Your task to perform on an android device: visit the assistant section in the google photos Image 0: 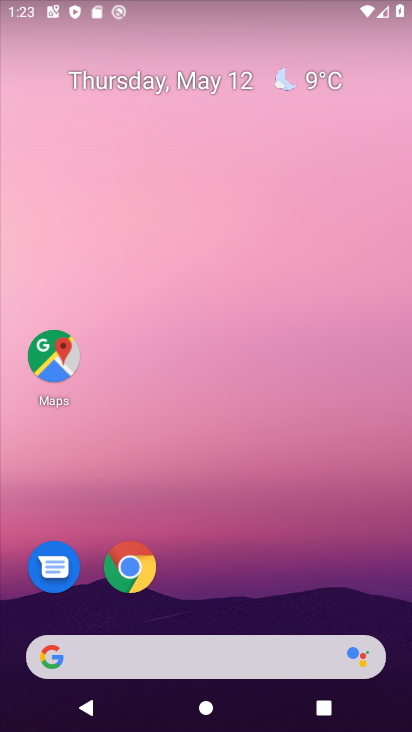
Step 0: drag from (223, 621) to (211, 94)
Your task to perform on an android device: visit the assistant section in the google photos Image 1: 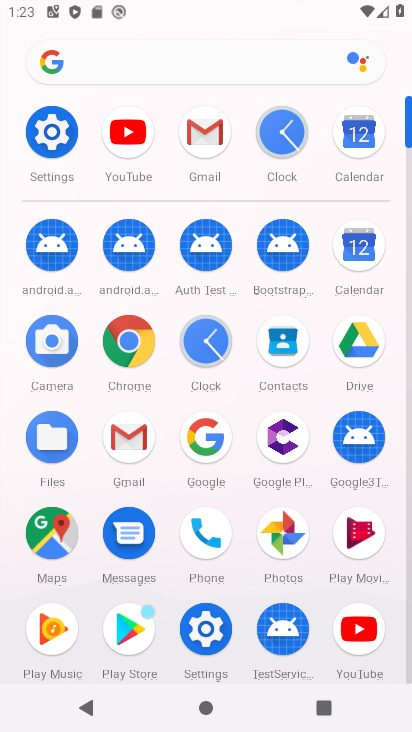
Step 1: click (283, 532)
Your task to perform on an android device: visit the assistant section in the google photos Image 2: 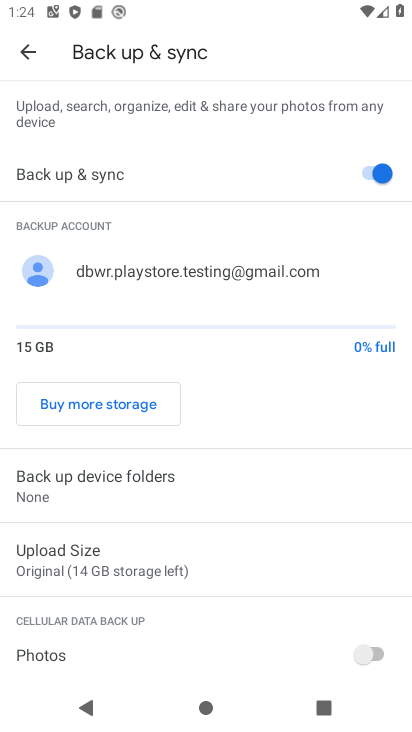
Step 2: click (26, 51)
Your task to perform on an android device: visit the assistant section in the google photos Image 3: 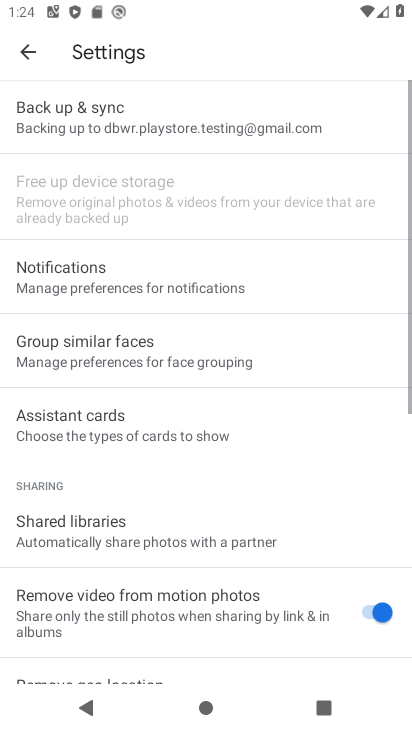
Step 3: click (26, 51)
Your task to perform on an android device: visit the assistant section in the google photos Image 4: 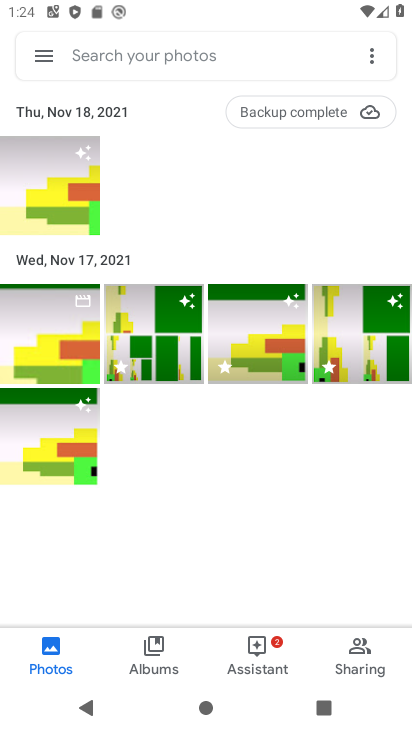
Step 4: click (254, 644)
Your task to perform on an android device: visit the assistant section in the google photos Image 5: 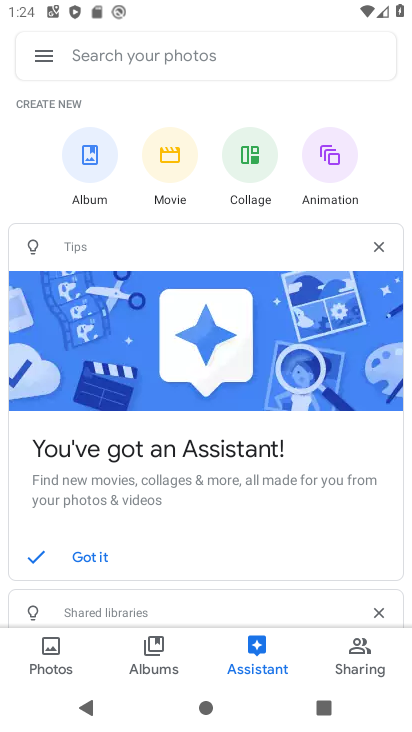
Step 5: task complete